Your task to perform on an android device: Do I have any events today? Image 0: 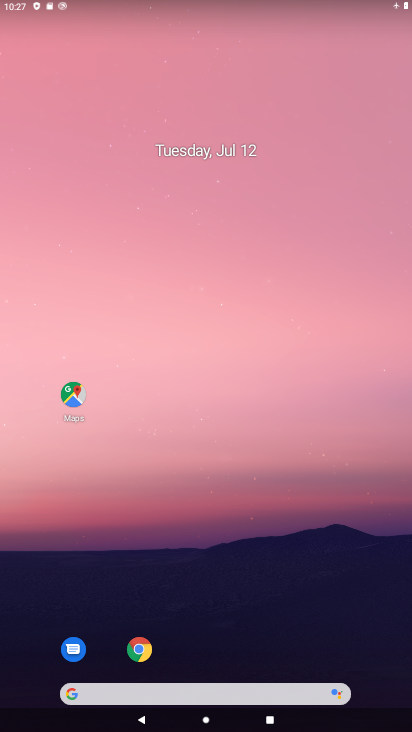
Step 0: drag from (344, 648) to (319, 25)
Your task to perform on an android device: Do I have any events today? Image 1: 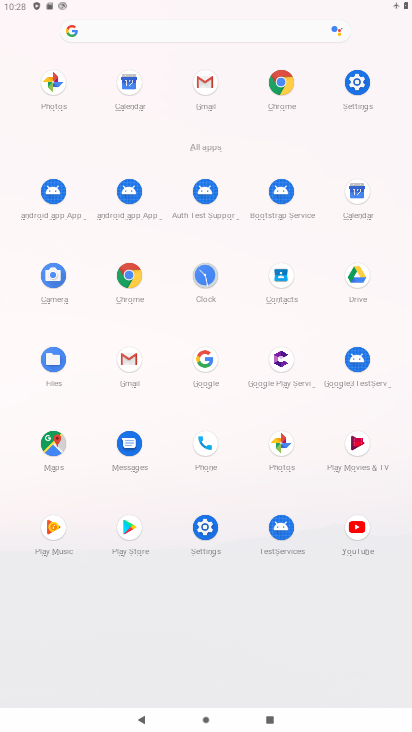
Step 1: click (355, 195)
Your task to perform on an android device: Do I have any events today? Image 2: 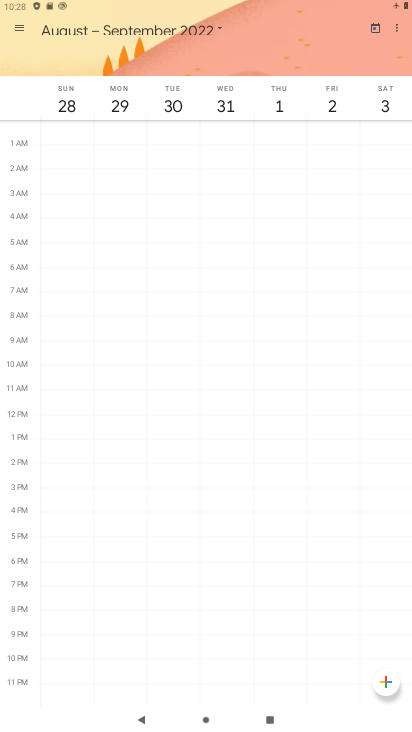
Step 2: click (20, 27)
Your task to perform on an android device: Do I have any events today? Image 3: 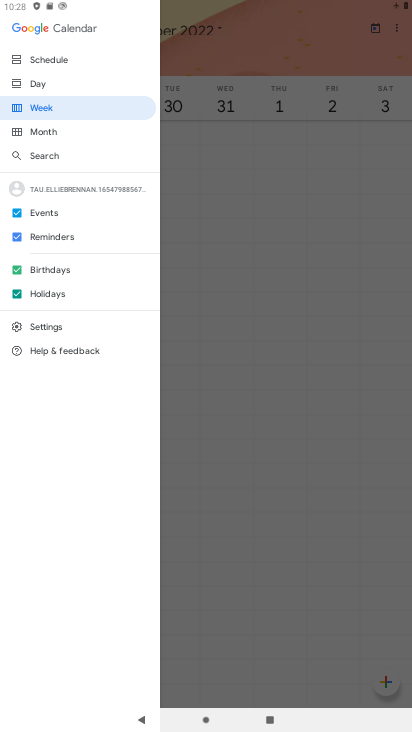
Step 3: click (36, 84)
Your task to perform on an android device: Do I have any events today? Image 4: 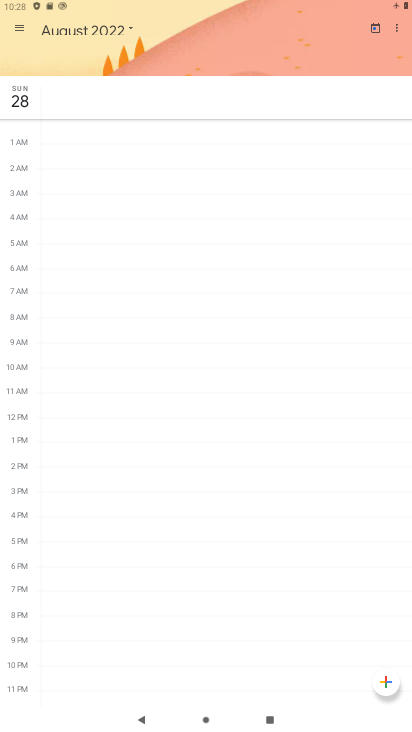
Step 4: click (128, 29)
Your task to perform on an android device: Do I have any events today? Image 5: 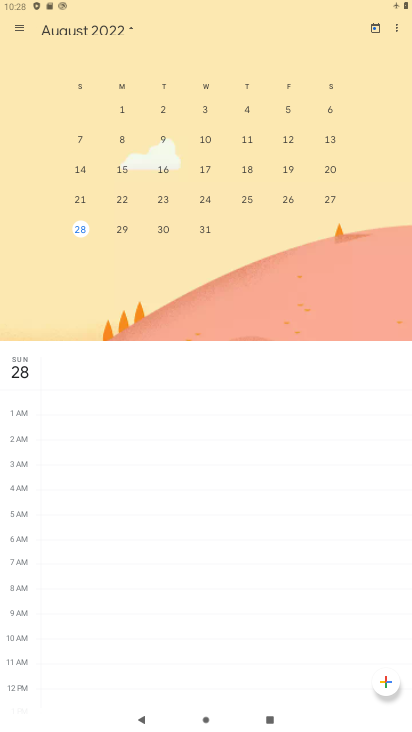
Step 5: drag from (79, 180) to (380, 215)
Your task to perform on an android device: Do I have any events today? Image 6: 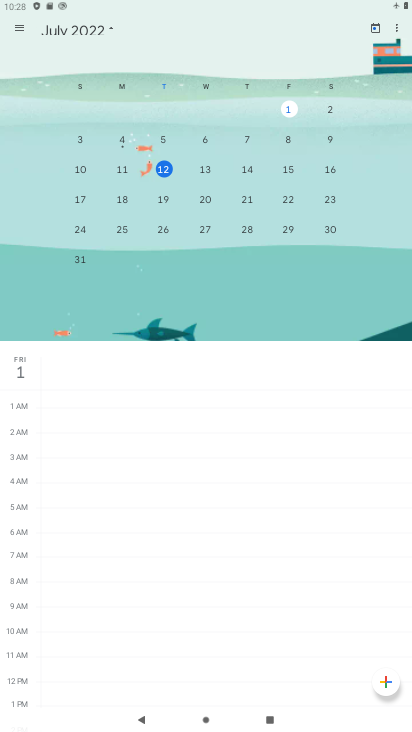
Step 6: click (161, 165)
Your task to perform on an android device: Do I have any events today? Image 7: 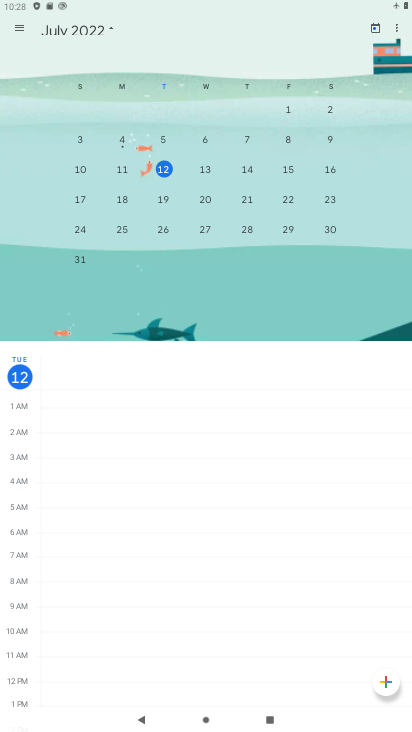
Step 7: task complete